Your task to perform on an android device: set default search engine in the chrome app Image 0: 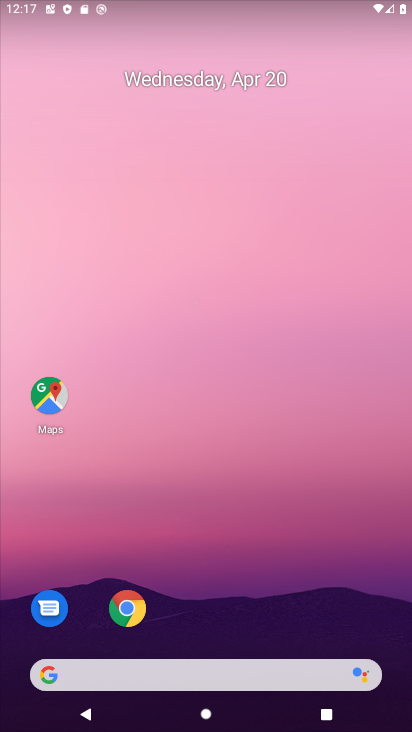
Step 0: click (122, 617)
Your task to perform on an android device: set default search engine in the chrome app Image 1: 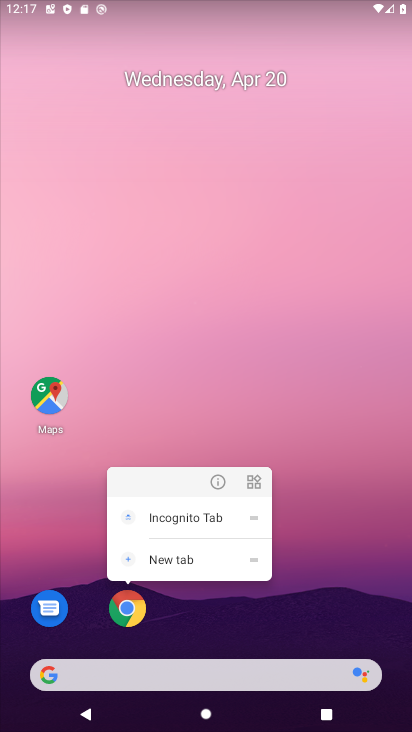
Step 1: click (122, 615)
Your task to perform on an android device: set default search engine in the chrome app Image 2: 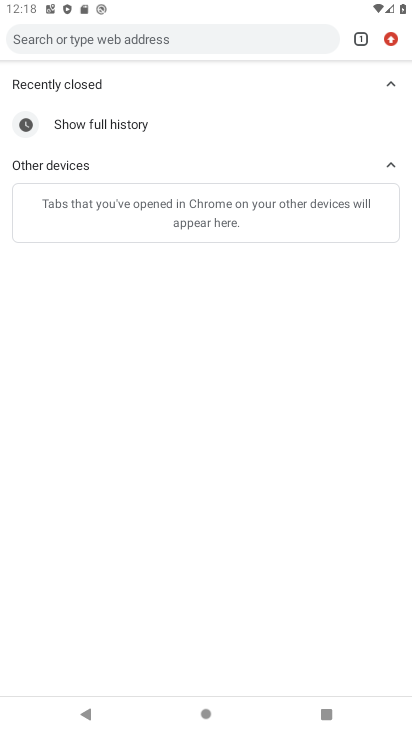
Step 2: click (392, 40)
Your task to perform on an android device: set default search engine in the chrome app Image 3: 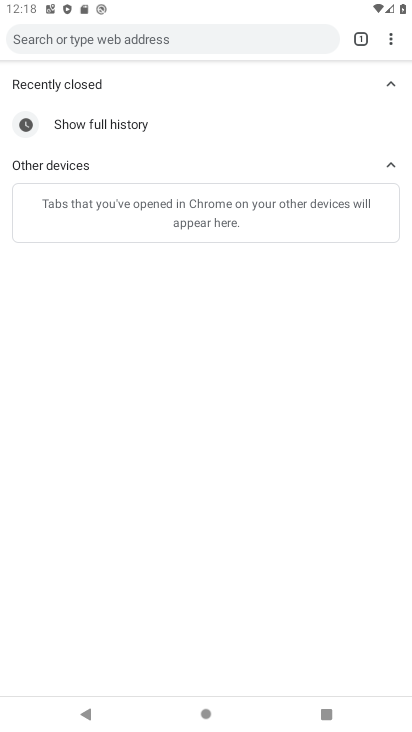
Step 3: click (394, 37)
Your task to perform on an android device: set default search engine in the chrome app Image 4: 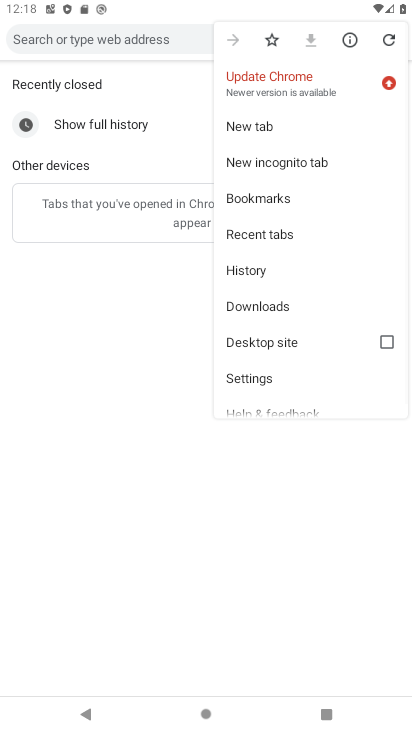
Step 4: click (393, 37)
Your task to perform on an android device: set default search engine in the chrome app Image 5: 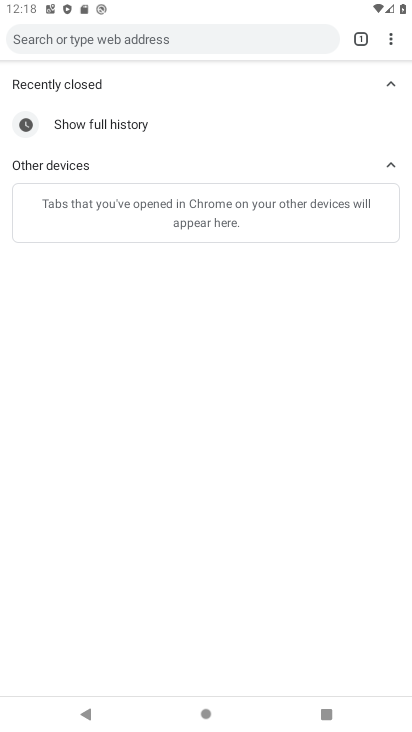
Step 5: click (393, 37)
Your task to perform on an android device: set default search engine in the chrome app Image 6: 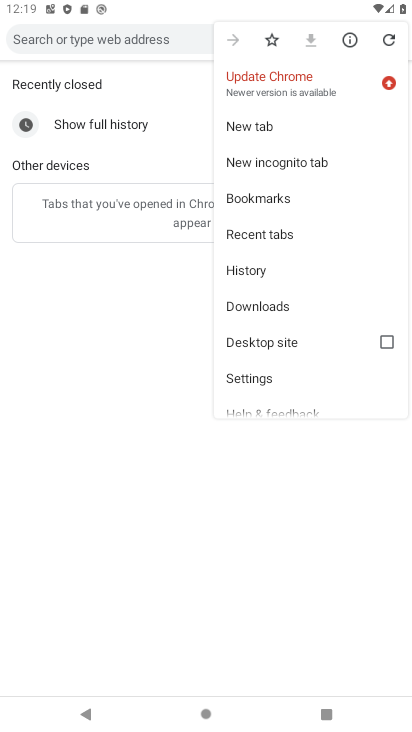
Step 6: click (263, 382)
Your task to perform on an android device: set default search engine in the chrome app Image 7: 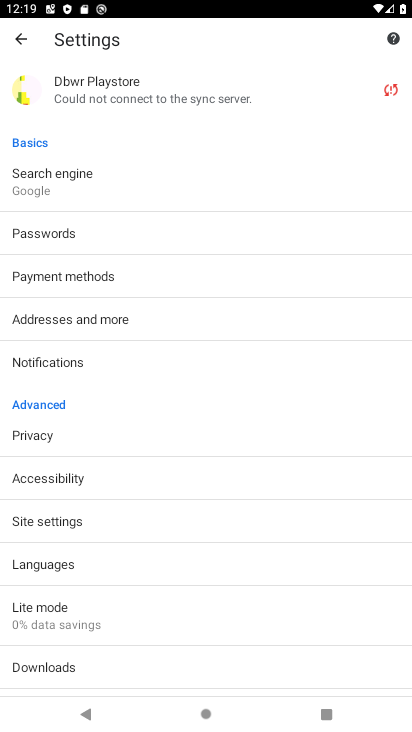
Step 7: click (77, 180)
Your task to perform on an android device: set default search engine in the chrome app Image 8: 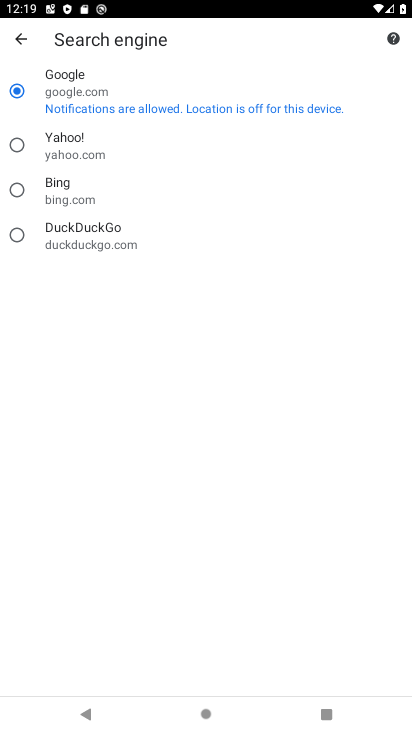
Step 8: task complete